Your task to perform on an android device: turn on the 12-hour format for clock Image 0: 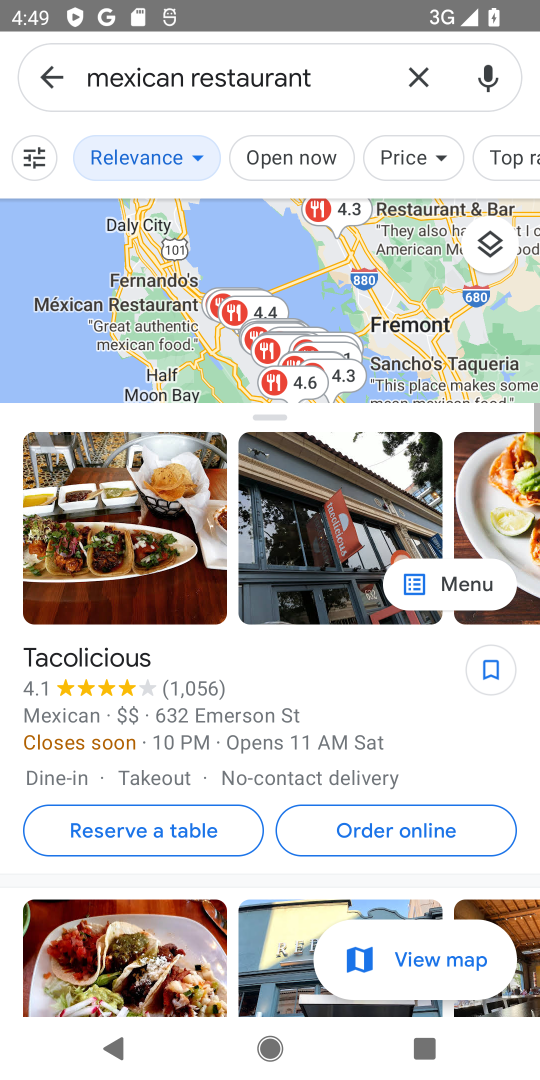
Step 0: click (352, 496)
Your task to perform on an android device: turn on the 12-hour format for clock Image 1: 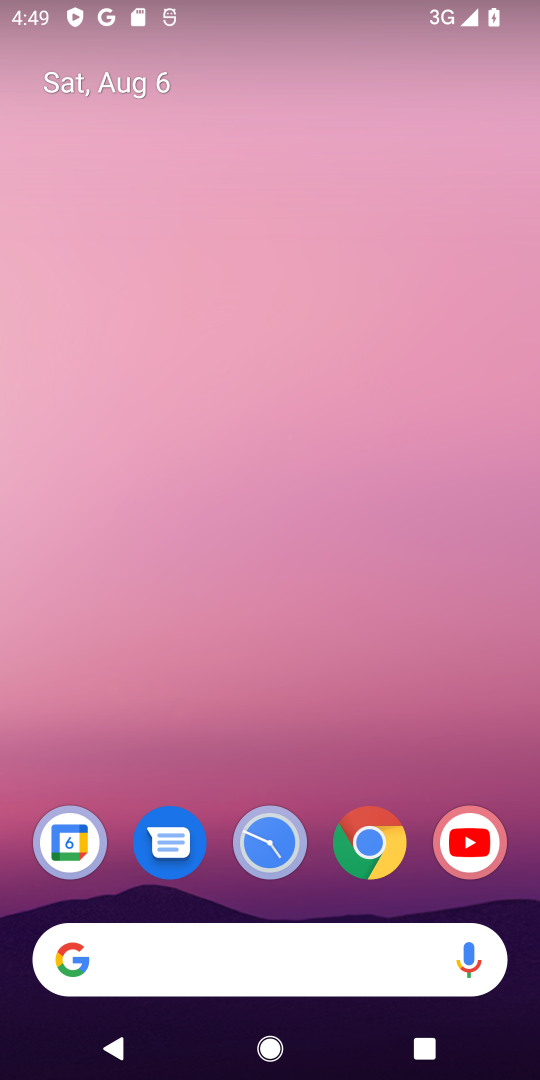
Step 1: click (285, 846)
Your task to perform on an android device: turn on the 12-hour format for clock Image 2: 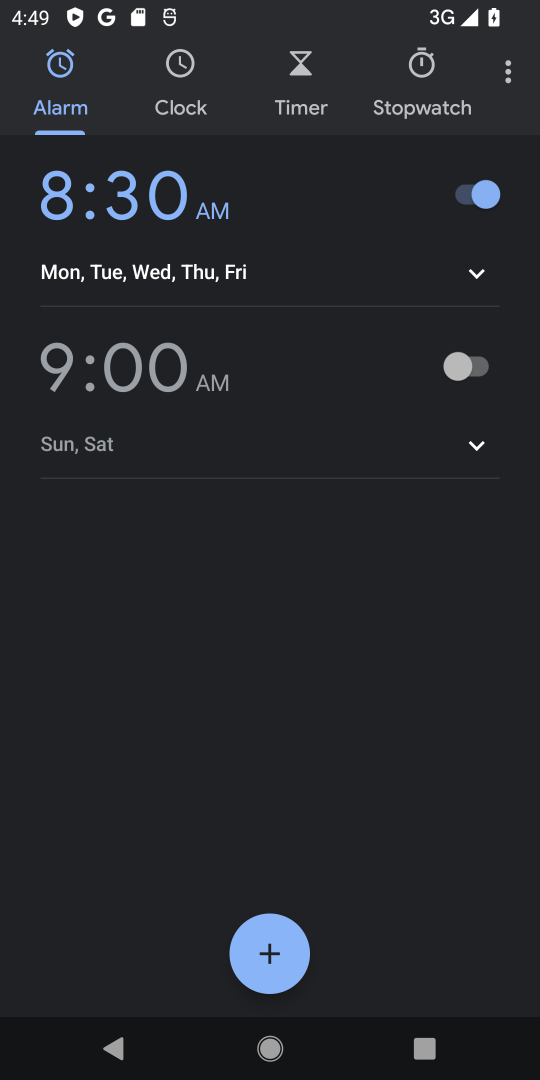
Step 2: click (507, 71)
Your task to perform on an android device: turn on the 12-hour format for clock Image 3: 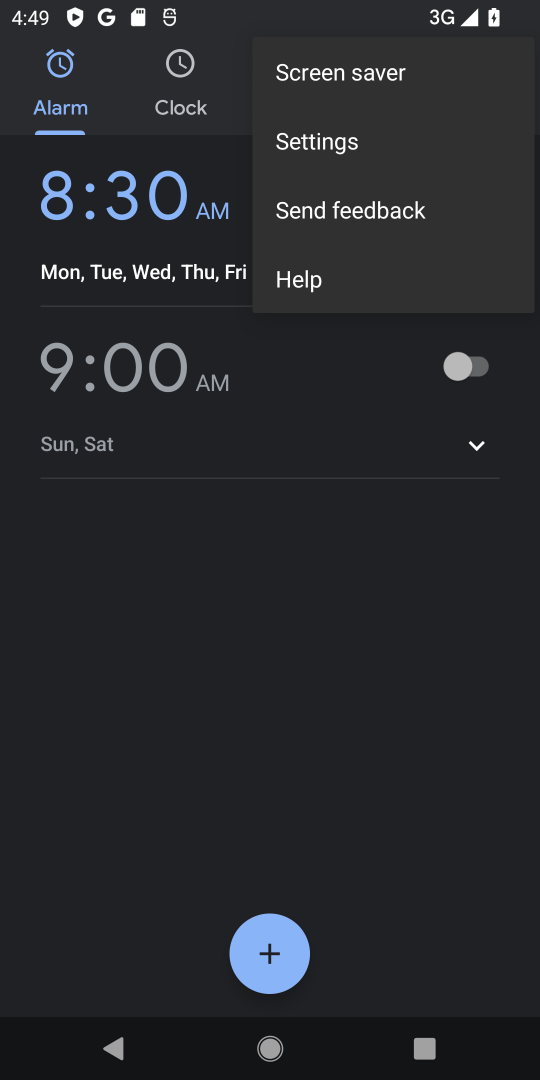
Step 3: click (342, 134)
Your task to perform on an android device: turn on the 12-hour format for clock Image 4: 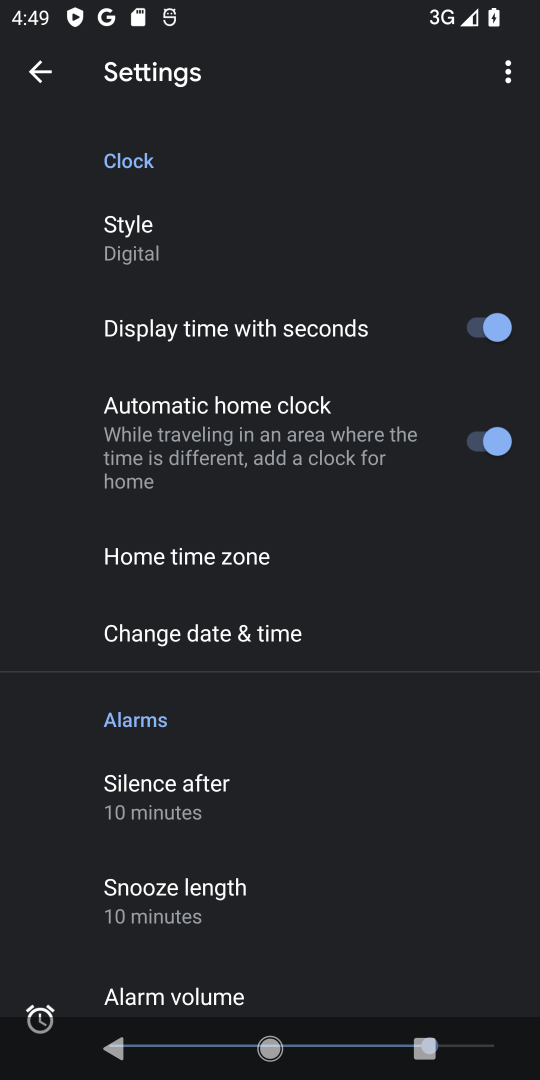
Step 4: click (182, 632)
Your task to perform on an android device: turn on the 12-hour format for clock Image 5: 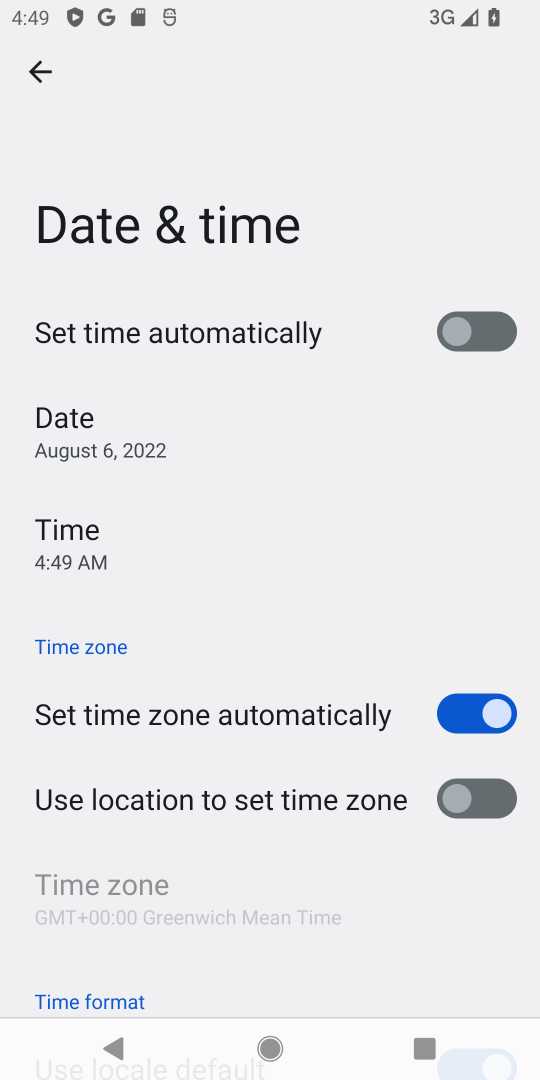
Step 5: task complete